Your task to perform on an android device: open a bookmark in the chrome app Image 0: 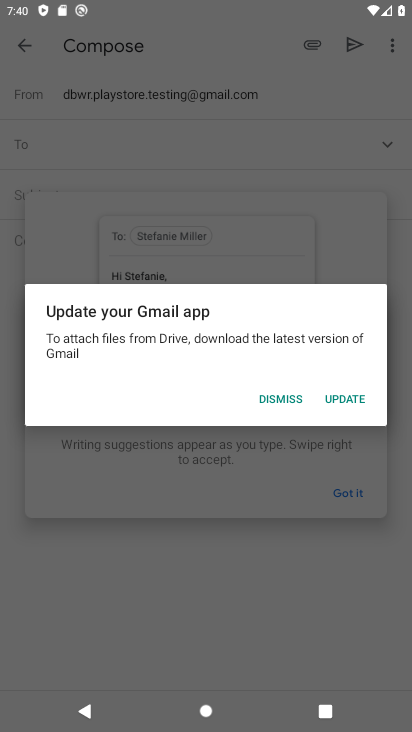
Step 0: press home button
Your task to perform on an android device: open a bookmark in the chrome app Image 1: 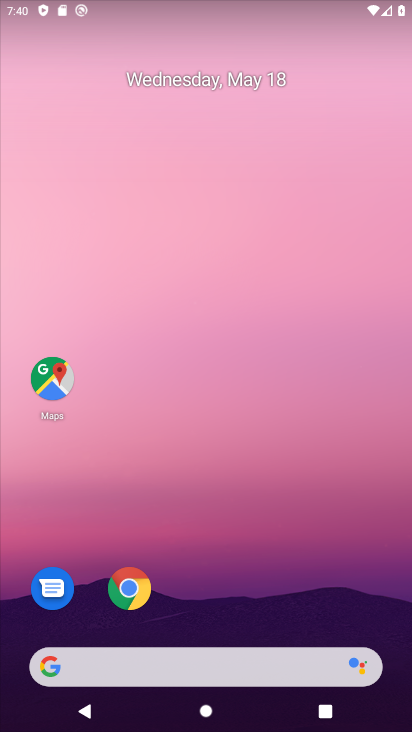
Step 1: click (127, 587)
Your task to perform on an android device: open a bookmark in the chrome app Image 2: 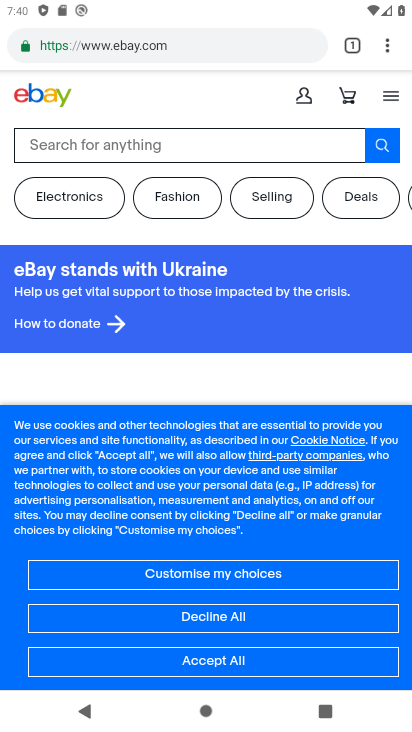
Step 2: click (386, 36)
Your task to perform on an android device: open a bookmark in the chrome app Image 3: 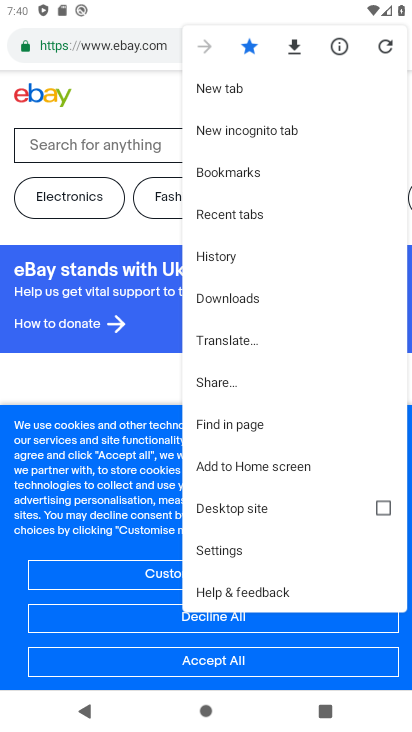
Step 3: click (262, 178)
Your task to perform on an android device: open a bookmark in the chrome app Image 4: 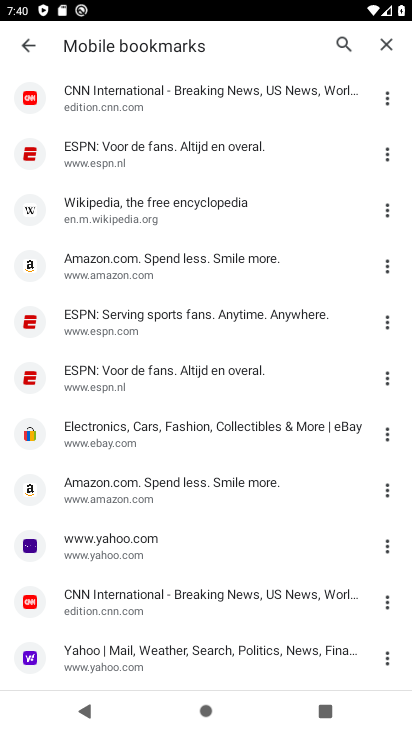
Step 4: click (157, 209)
Your task to perform on an android device: open a bookmark in the chrome app Image 5: 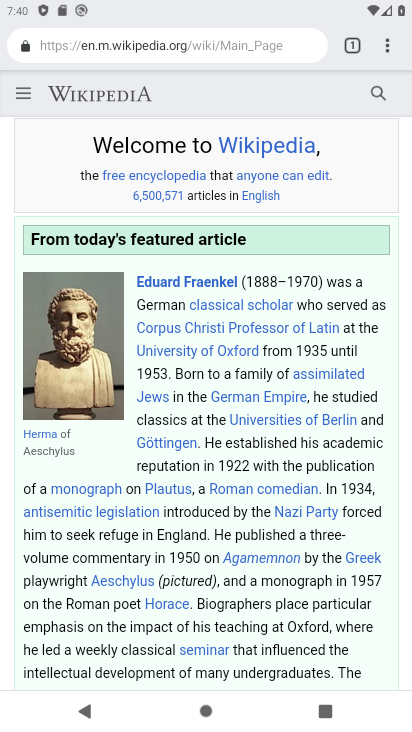
Step 5: task complete